Your task to perform on an android device: What's a good restaurant in Portland? Image 0: 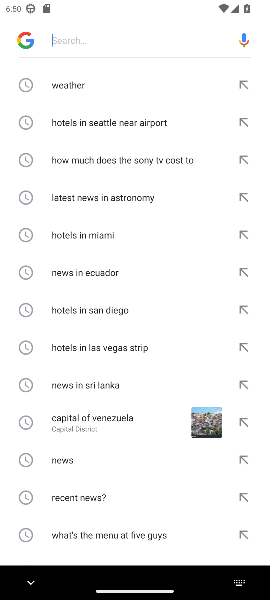
Step 0: type "What's a good restaurant in Portland?"
Your task to perform on an android device: What's a good restaurant in Portland? Image 1: 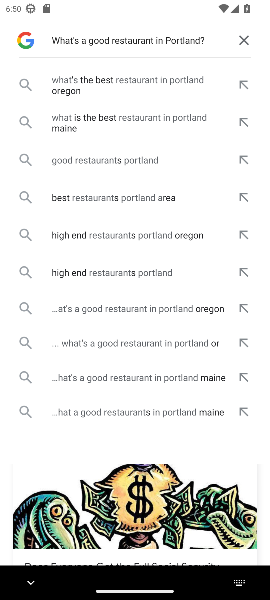
Step 1: click (130, 161)
Your task to perform on an android device: What's a good restaurant in Portland? Image 2: 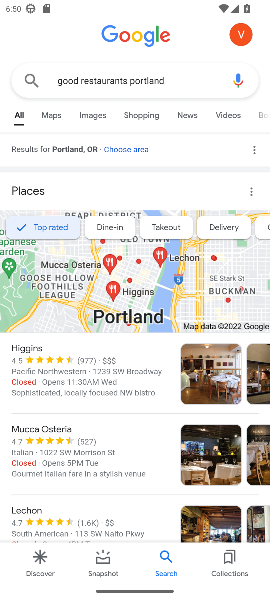
Step 2: task complete